Your task to perform on an android device: toggle sleep mode Image 0: 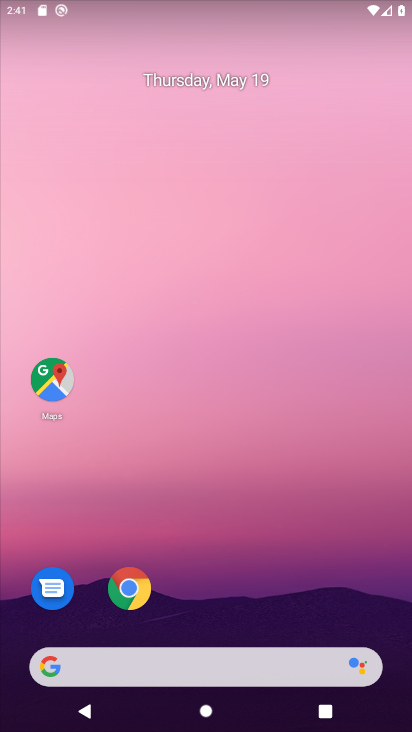
Step 0: drag from (257, 644) to (365, 103)
Your task to perform on an android device: toggle sleep mode Image 1: 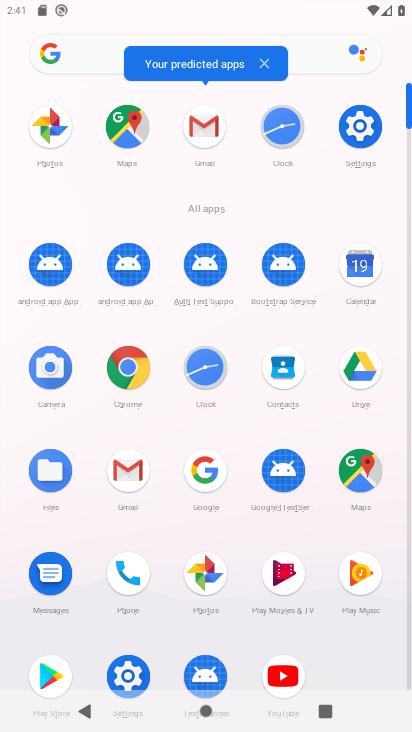
Step 1: click (357, 124)
Your task to perform on an android device: toggle sleep mode Image 2: 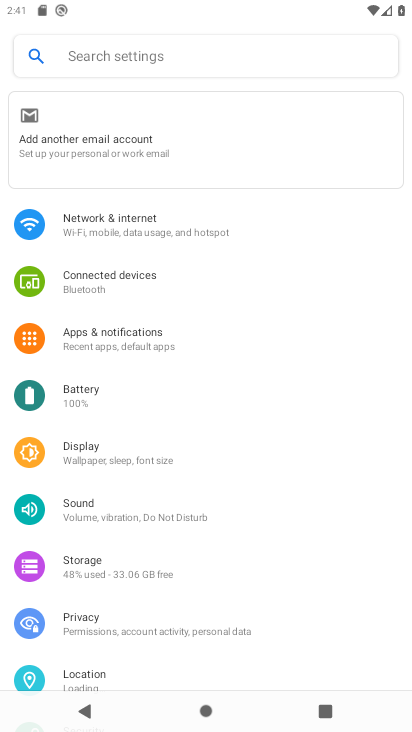
Step 2: click (111, 453)
Your task to perform on an android device: toggle sleep mode Image 3: 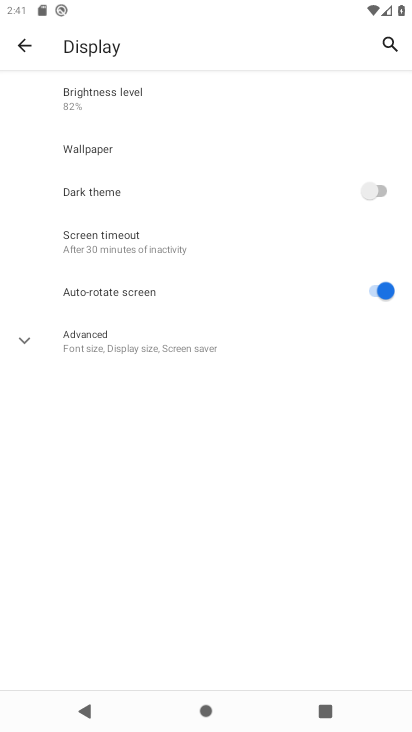
Step 3: click (143, 259)
Your task to perform on an android device: toggle sleep mode Image 4: 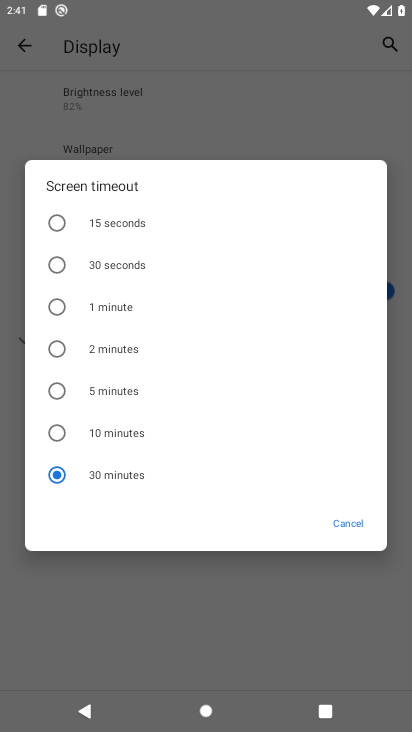
Step 4: click (141, 270)
Your task to perform on an android device: toggle sleep mode Image 5: 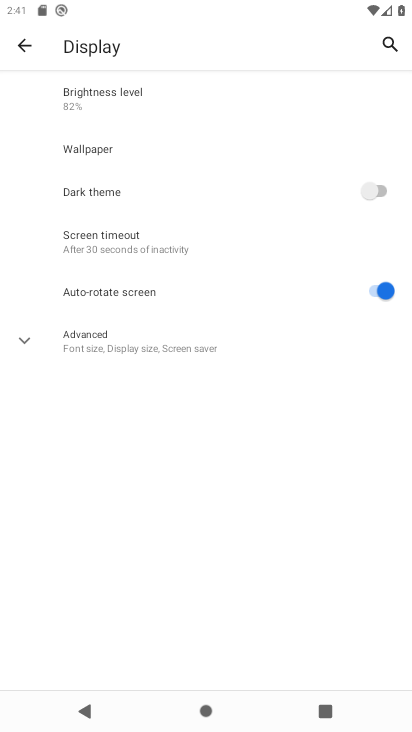
Step 5: task complete